Your task to perform on an android device: turn off picture-in-picture Image 0: 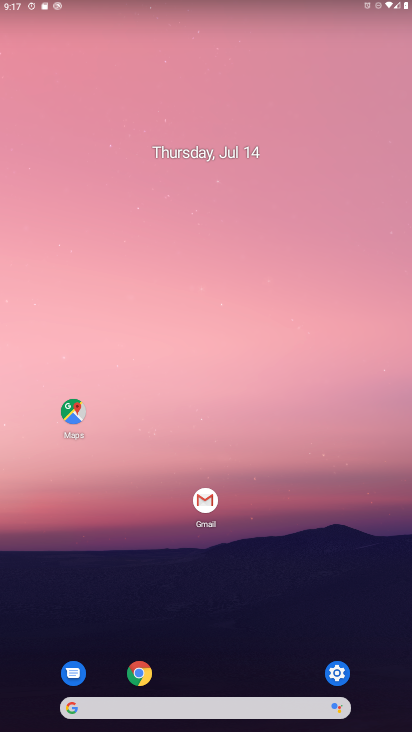
Step 0: press home button
Your task to perform on an android device: turn off picture-in-picture Image 1: 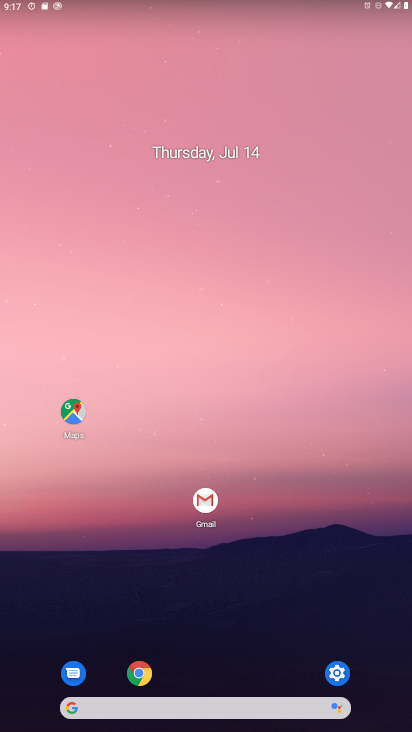
Step 1: drag from (318, 717) to (205, 45)
Your task to perform on an android device: turn off picture-in-picture Image 2: 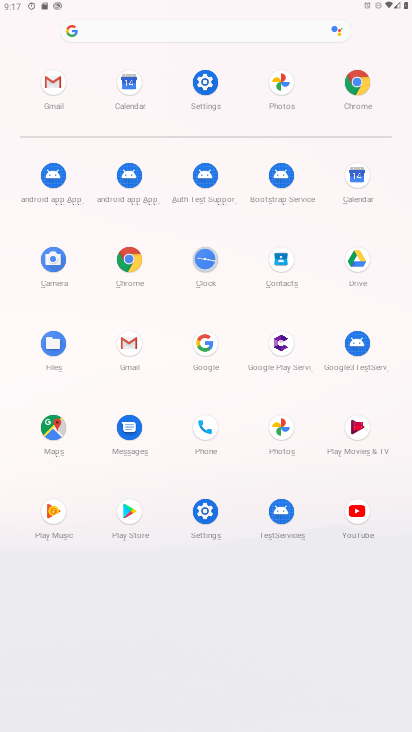
Step 2: click (358, 512)
Your task to perform on an android device: turn off picture-in-picture Image 3: 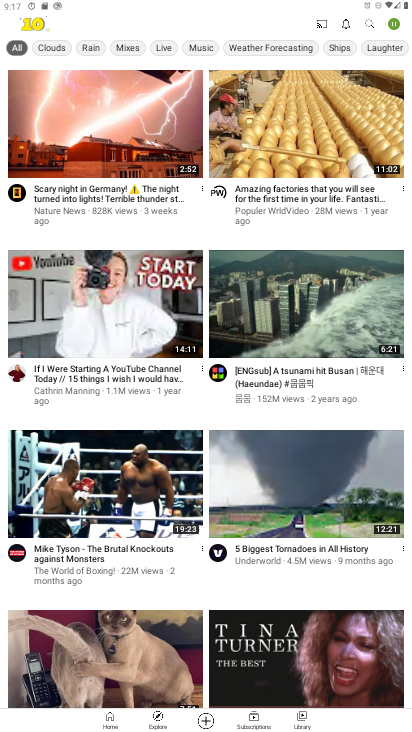
Step 3: click (389, 28)
Your task to perform on an android device: turn off picture-in-picture Image 4: 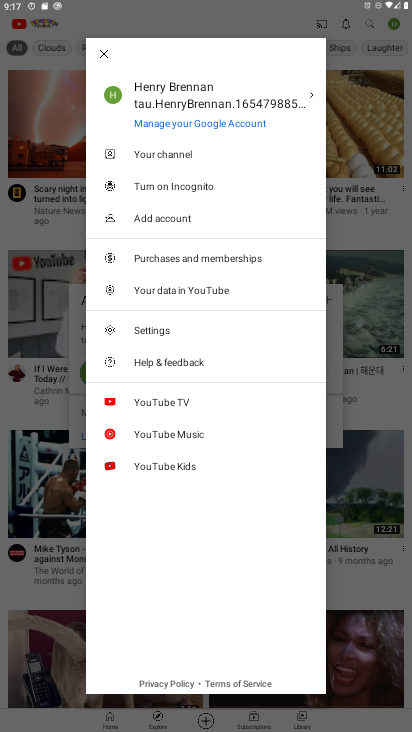
Step 4: click (155, 335)
Your task to perform on an android device: turn off picture-in-picture Image 5: 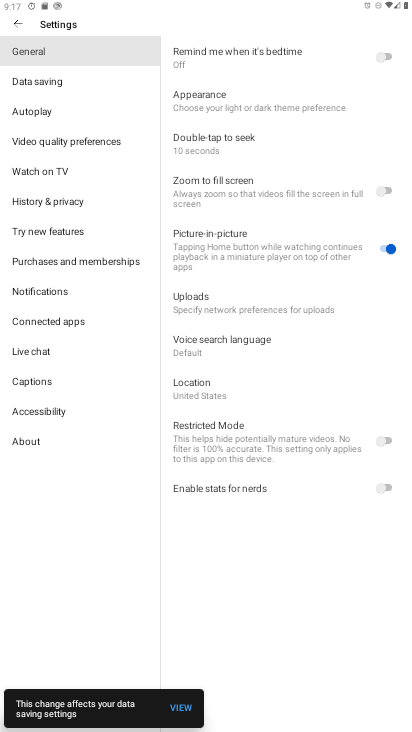
Step 5: click (253, 257)
Your task to perform on an android device: turn off picture-in-picture Image 6: 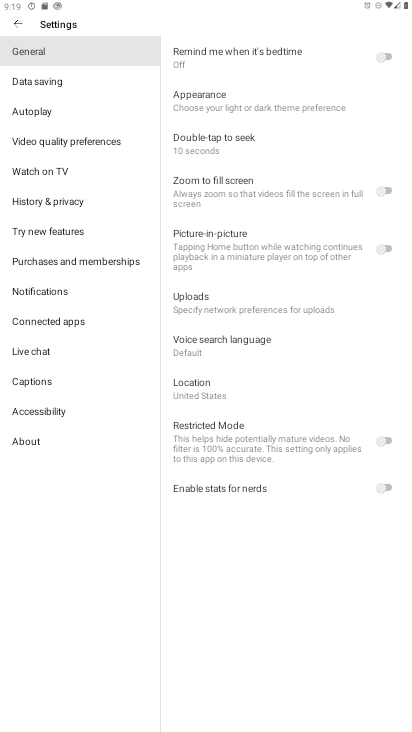
Step 6: task complete